Your task to perform on an android device: Open Google Chrome and open the bookmarks view Image 0: 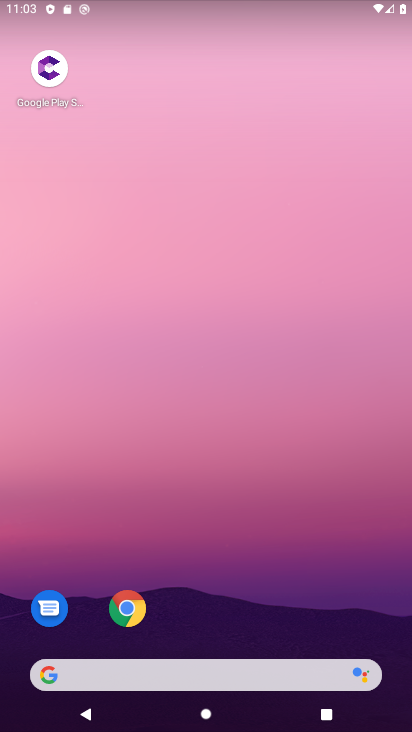
Step 0: click (129, 609)
Your task to perform on an android device: Open Google Chrome and open the bookmarks view Image 1: 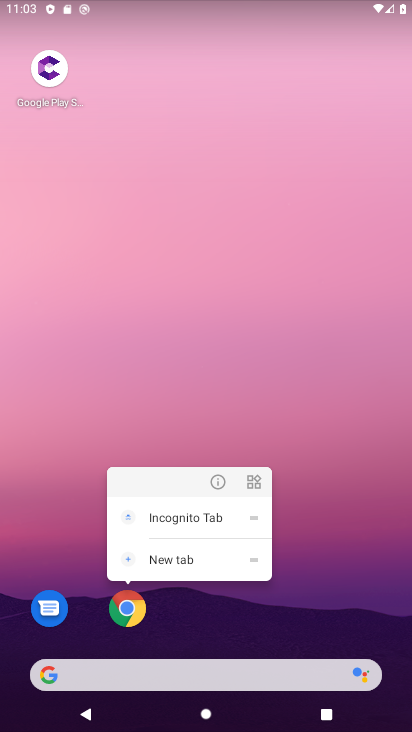
Step 1: click (129, 609)
Your task to perform on an android device: Open Google Chrome and open the bookmarks view Image 2: 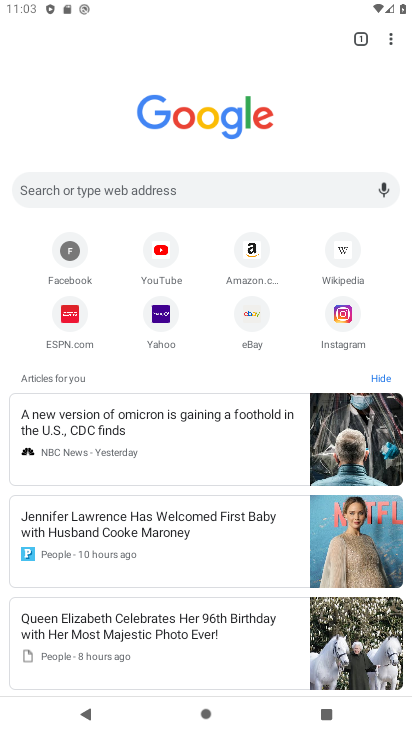
Step 2: click (386, 39)
Your task to perform on an android device: Open Google Chrome and open the bookmarks view Image 3: 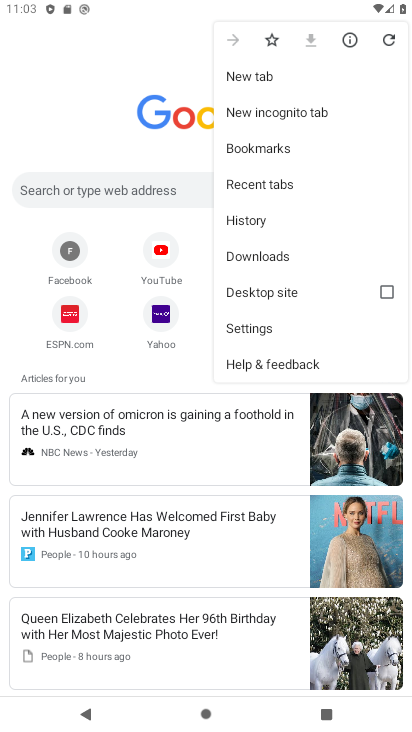
Step 3: click (272, 327)
Your task to perform on an android device: Open Google Chrome and open the bookmarks view Image 4: 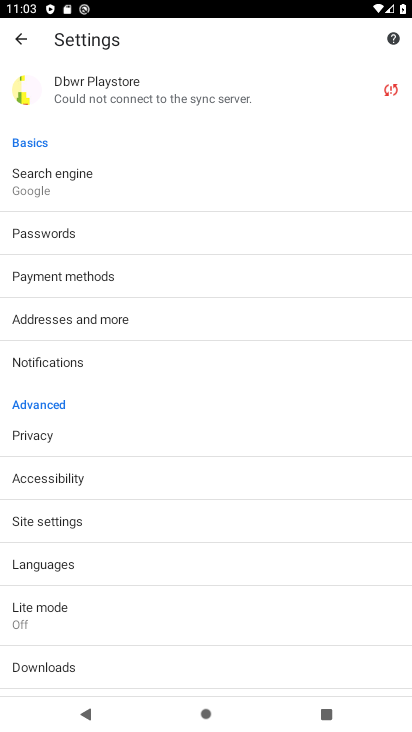
Step 4: click (162, 528)
Your task to perform on an android device: Open Google Chrome and open the bookmarks view Image 5: 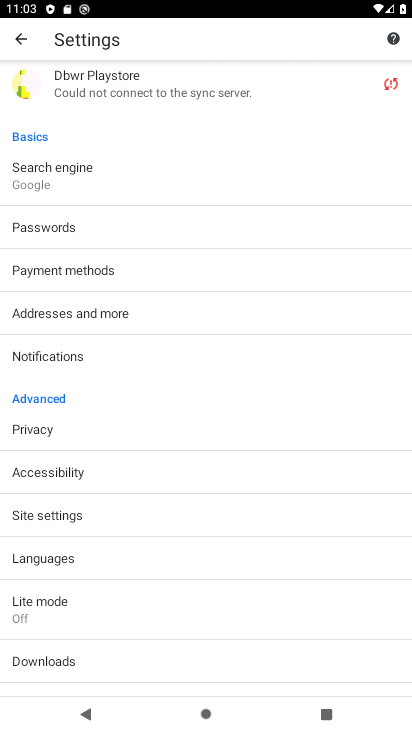
Step 5: press back button
Your task to perform on an android device: Open Google Chrome and open the bookmarks view Image 6: 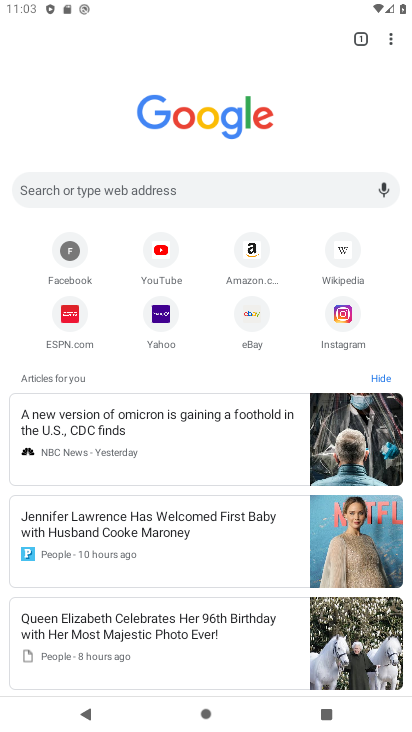
Step 6: click (388, 36)
Your task to perform on an android device: Open Google Chrome and open the bookmarks view Image 7: 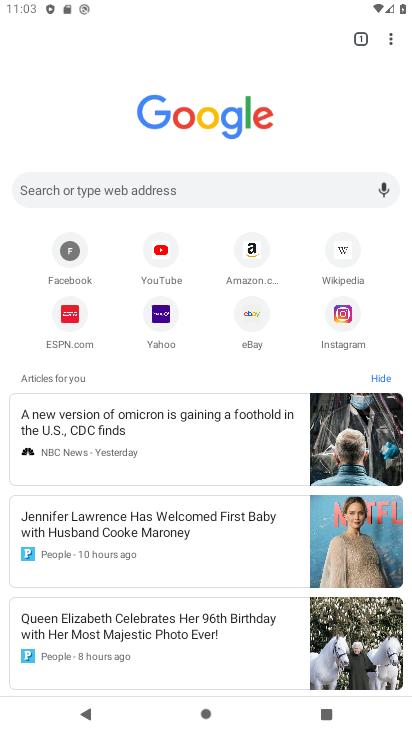
Step 7: click (386, 44)
Your task to perform on an android device: Open Google Chrome and open the bookmarks view Image 8: 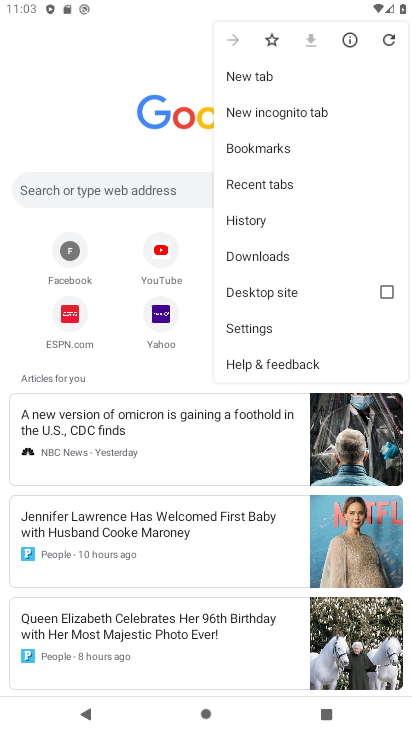
Step 8: click (280, 150)
Your task to perform on an android device: Open Google Chrome and open the bookmarks view Image 9: 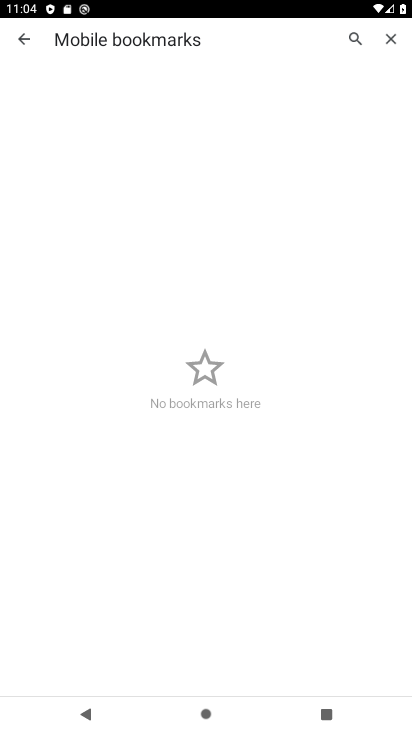
Step 9: task complete